Your task to perform on an android device: turn smart compose on in the gmail app Image 0: 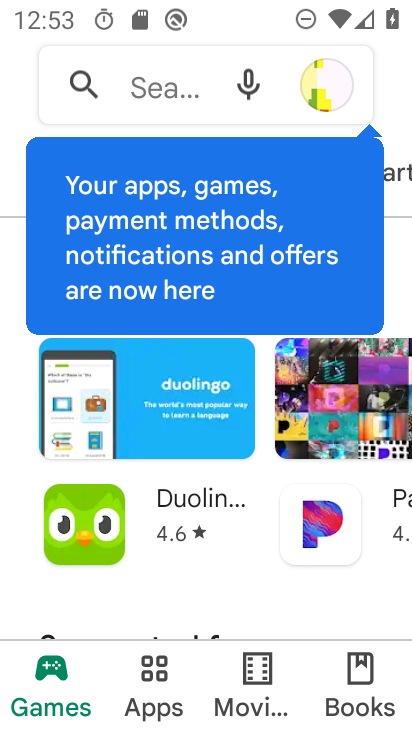
Step 0: press home button
Your task to perform on an android device: turn smart compose on in the gmail app Image 1: 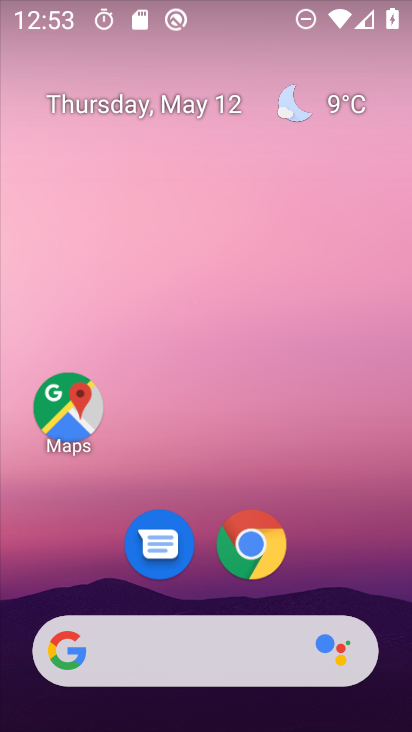
Step 1: drag from (216, 719) to (222, 159)
Your task to perform on an android device: turn smart compose on in the gmail app Image 2: 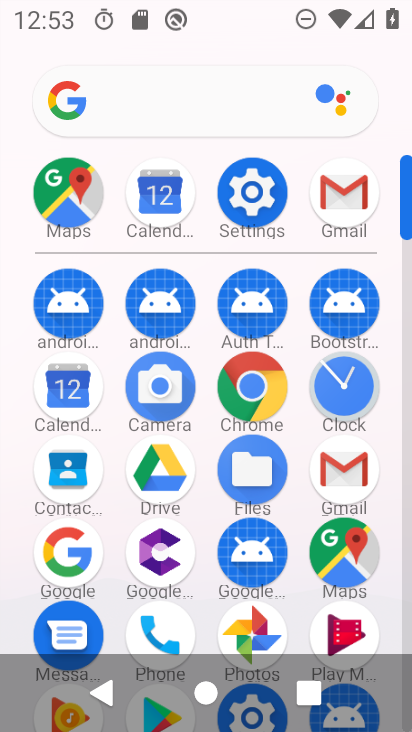
Step 2: click (347, 464)
Your task to perform on an android device: turn smart compose on in the gmail app Image 3: 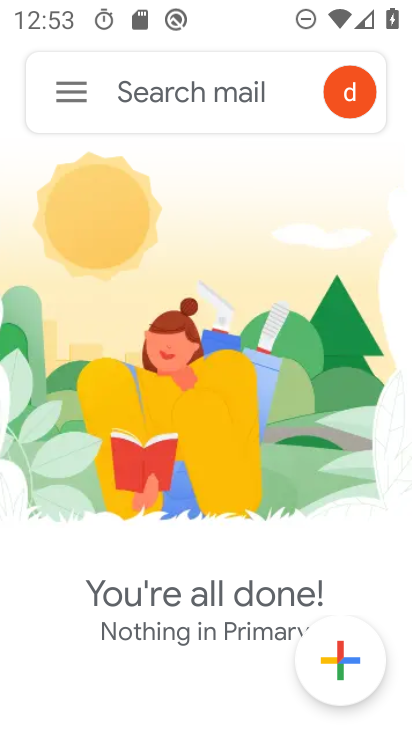
Step 3: click (63, 93)
Your task to perform on an android device: turn smart compose on in the gmail app Image 4: 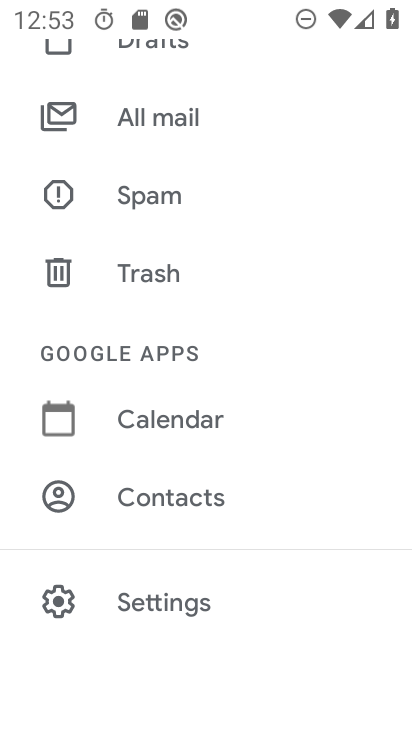
Step 4: click (167, 605)
Your task to perform on an android device: turn smart compose on in the gmail app Image 5: 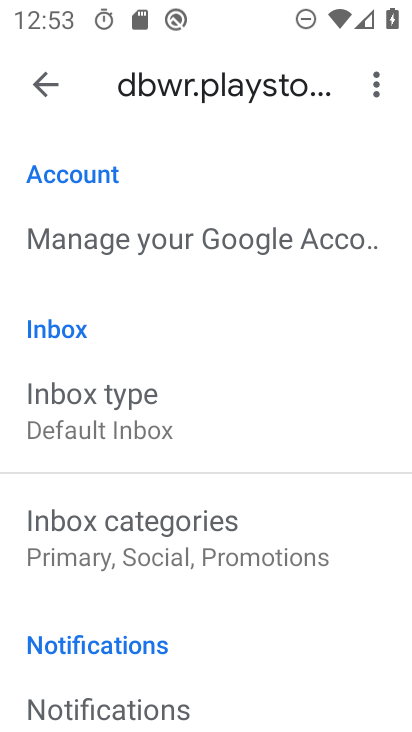
Step 5: task complete